Your task to perform on an android device: Open eBay Image 0: 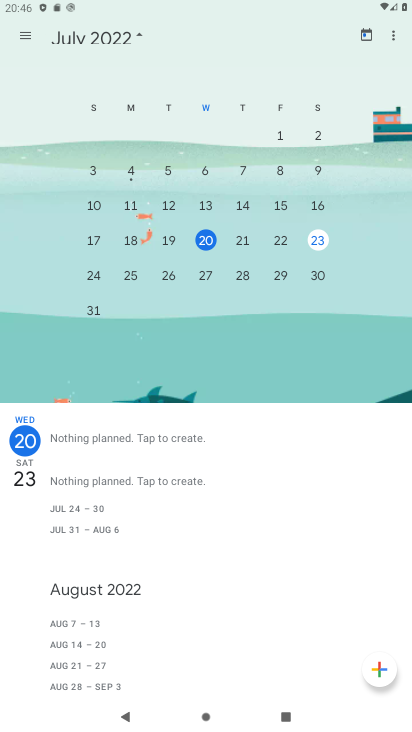
Step 0: press home button
Your task to perform on an android device: Open eBay Image 1: 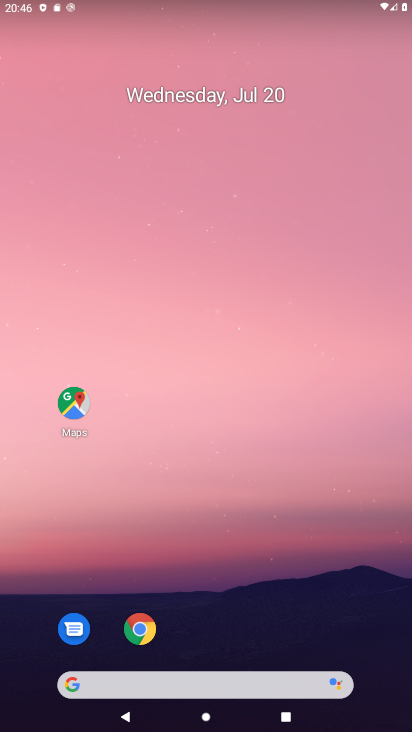
Step 1: click (132, 633)
Your task to perform on an android device: Open eBay Image 2: 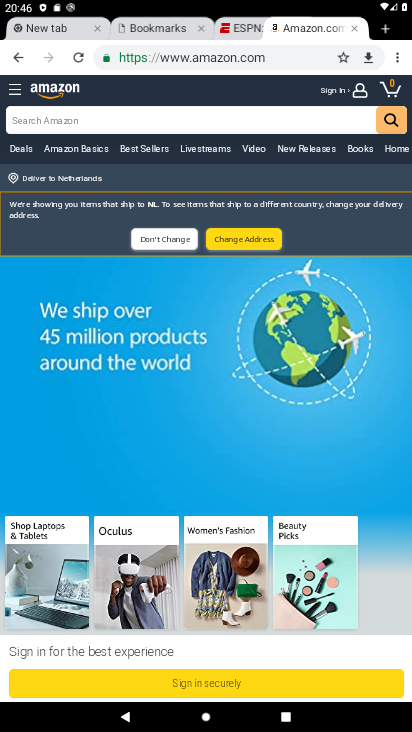
Step 2: click (382, 25)
Your task to perform on an android device: Open eBay Image 3: 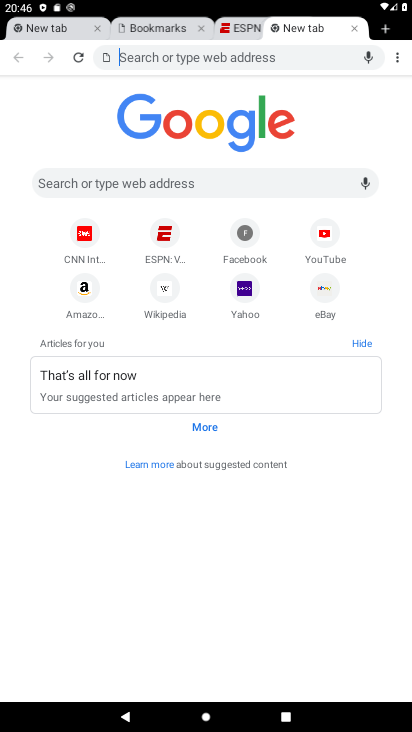
Step 3: click (317, 296)
Your task to perform on an android device: Open eBay Image 4: 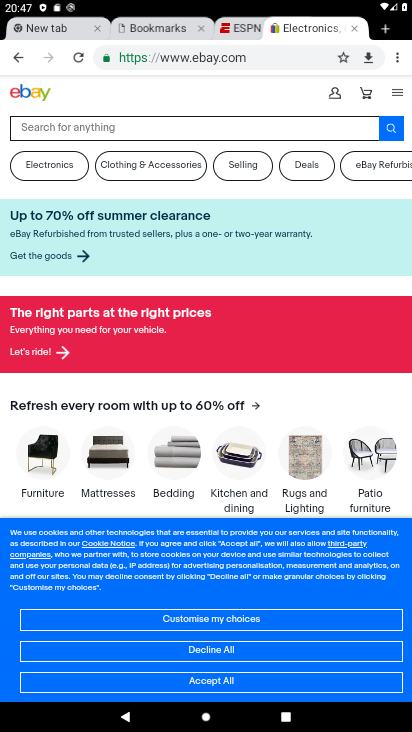
Step 4: task complete